Your task to perform on an android device: delete browsing data in the chrome app Image 0: 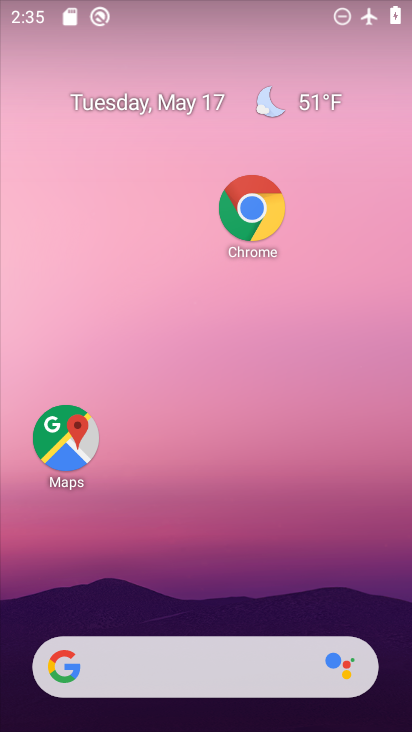
Step 0: click (247, 233)
Your task to perform on an android device: delete browsing data in the chrome app Image 1: 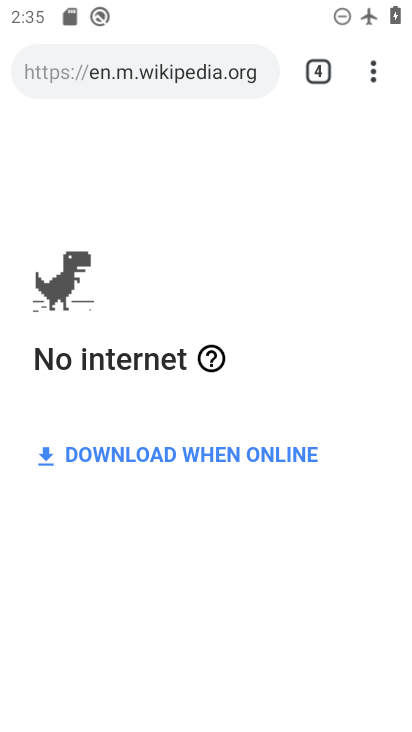
Step 1: click (373, 72)
Your task to perform on an android device: delete browsing data in the chrome app Image 2: 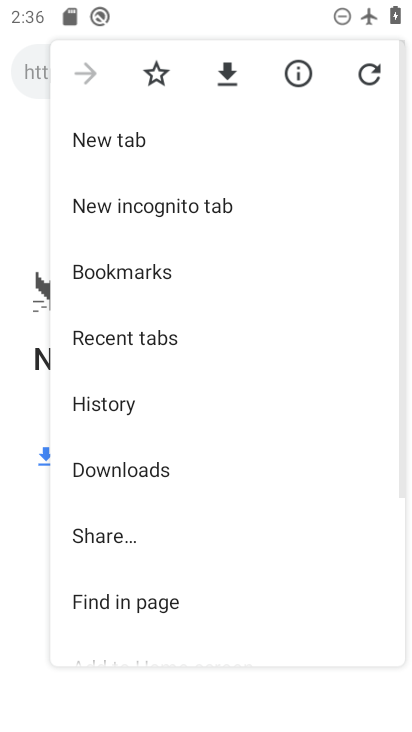
Step 2: click (130, 399)
Your task to perform on an android device: delete browsing data in the chrome app Image 3: 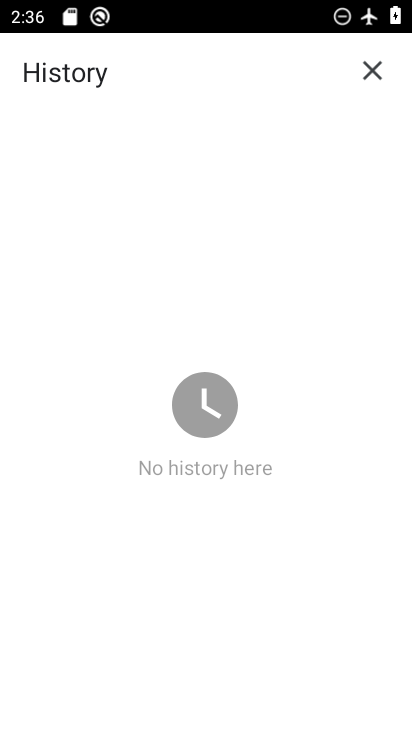
Step 3: task complete